Your task to perform on an android device: change the clock display to digital Image 0: 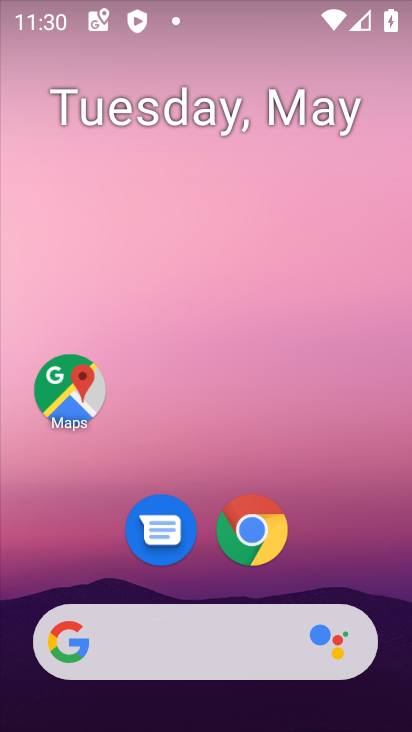
Step 0: drag from (224, 578) to (246, 204)
Your task to perform on an android device: change the clock display to digital Image 1: 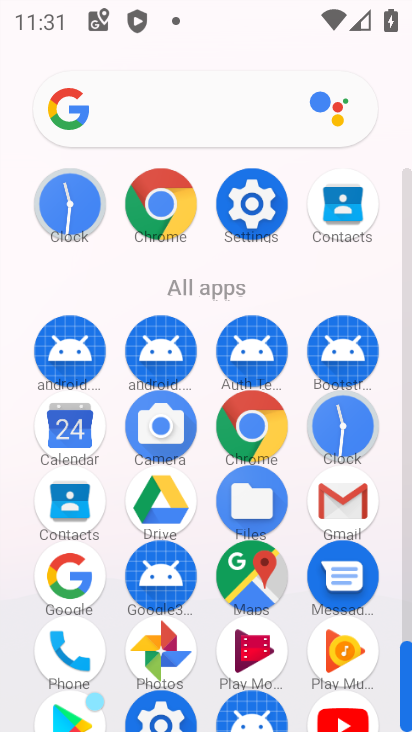
Step 1: click (67, 205)
Your task to perform on an android device: change the clock display to digital Image 2: 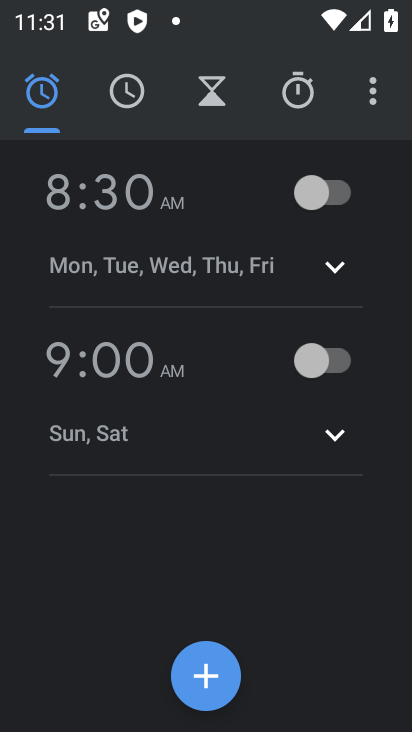
Step 2: click (370, 100)
Your task to perform on an android device: change the clock display to digital Image 3: 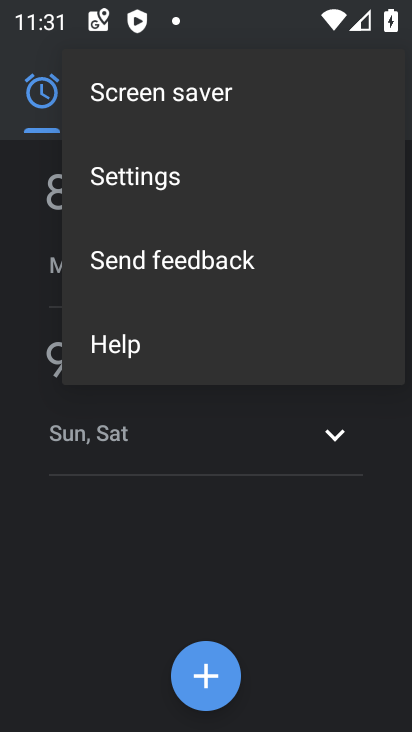
Step 3: click (115, 167)
Your task to perform on an android device: change the clock display to digital Image 4: 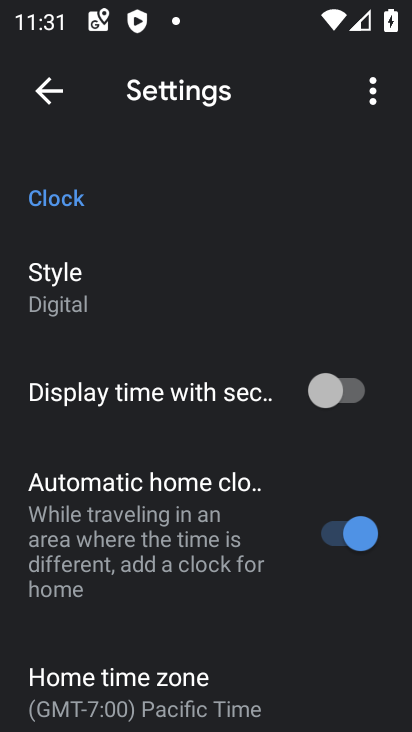
Step 4: click (71, 283)
Your task to perform on an android device: change the clock display to digital Image 5: 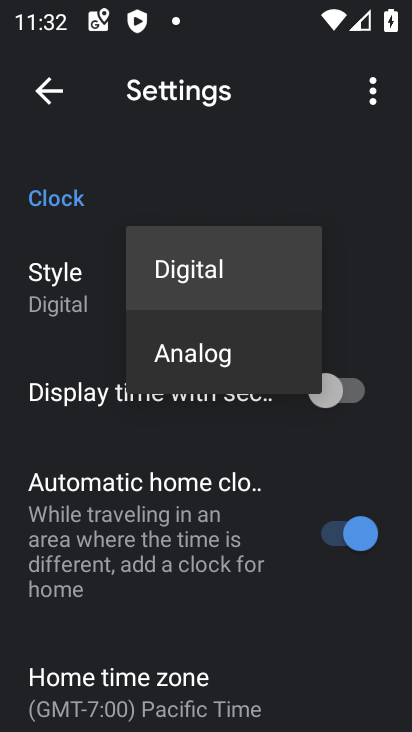
Step 5: click (207, 351)
Your task to perform on an android device: change the clock display to digital Image 6: 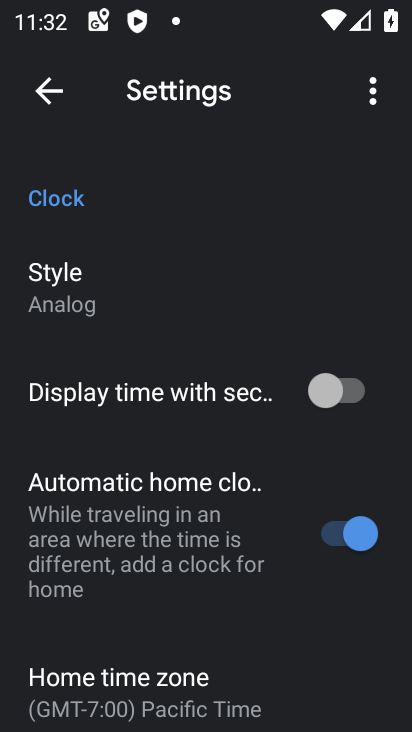
Step 6: task complete